Your task to perform on an android device: search for starred emails in the gmail app Image 0: 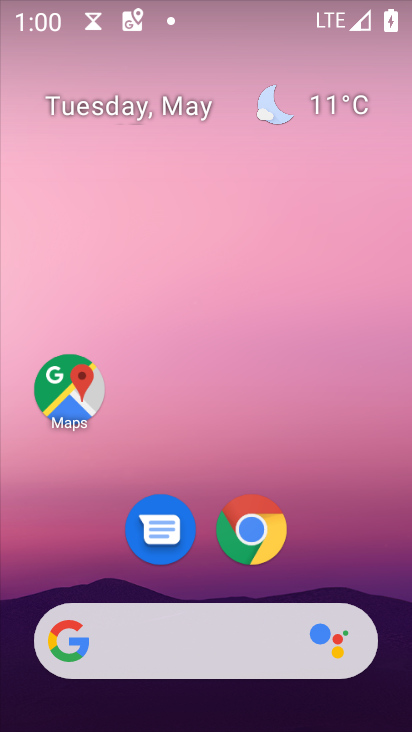
Step 0: drag from (182, 725) to (178, 200)
Your task to perform on an android device: search for starred emails in the gmail app Image 1: 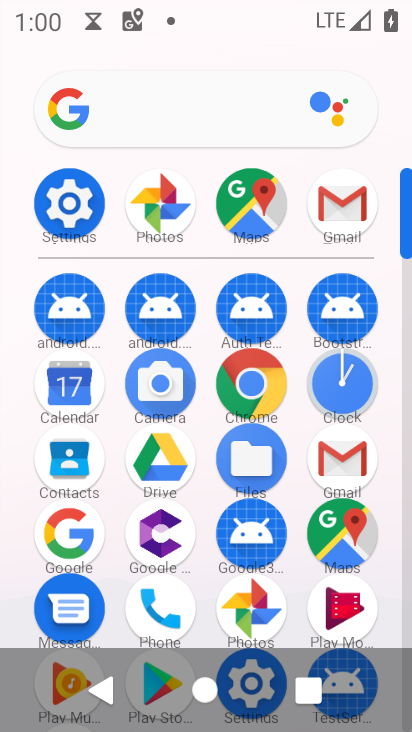
Step 1: click (343, 460)
Your task to perform on an android device: search for starred emails in the gmail app Image 2: 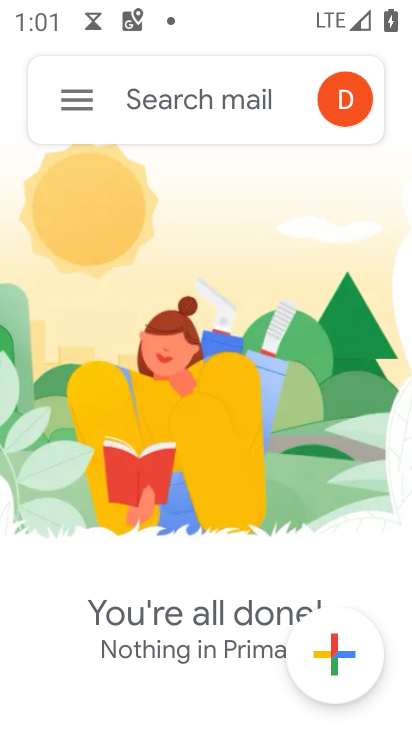
Step 2: click (73, 103)
Your task to perform on an android device: search for starred emails in the gmail app Image 3: 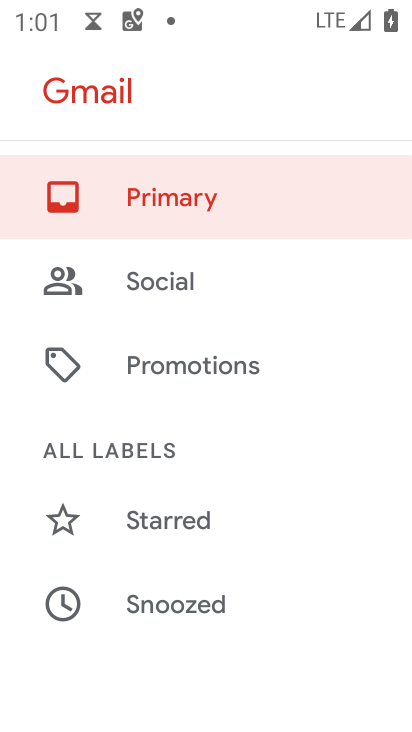
Step 3: click (153, 521)
Your task to perform on an android device: search for starred emails in the gmail app Image 4: 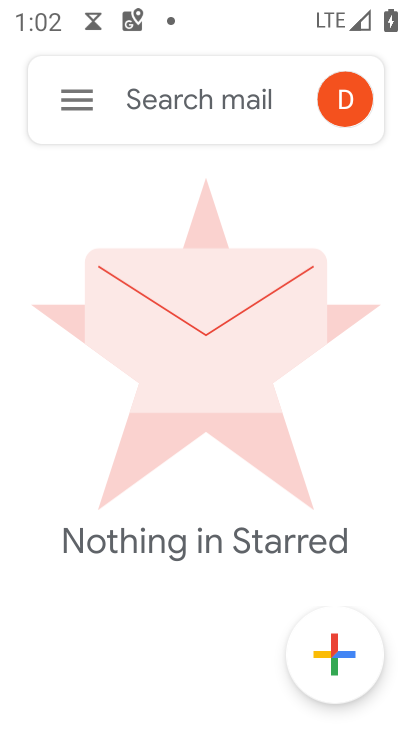
Step 4: task complete